Your task to perform on an android device: Set the phone to "Do not disturb". Image 0: 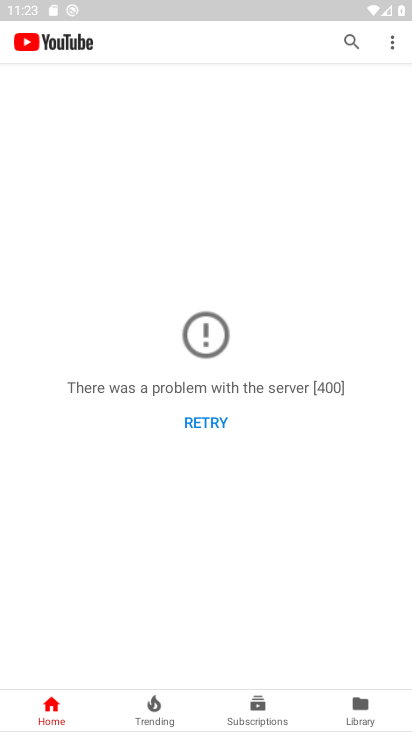
Step 0: drag from (168, 0) to (102, 311)
Your task to perform on an android device: Set the phone to "Do not disturb". Image 1: 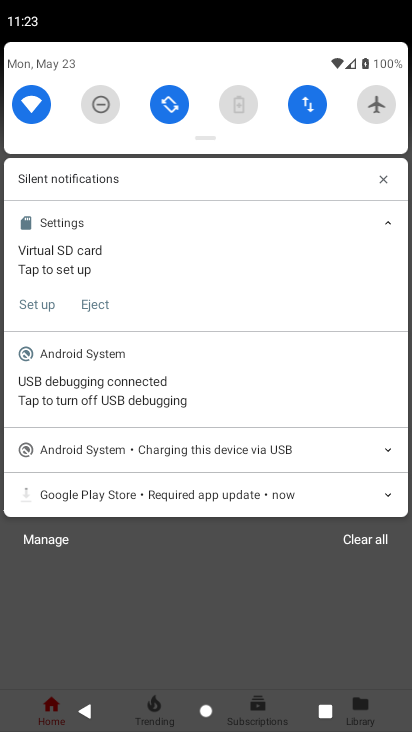
Step 1: click (112, 103)
Your task to perform on an android device: Set the phone to "Do not disturb". Image 2: 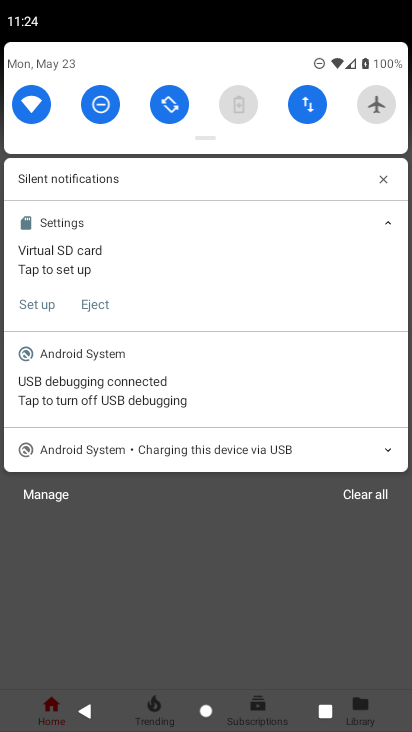
Step 2: task complete